Your task to perform on an android device: turn off notifications in google photos Image 0: 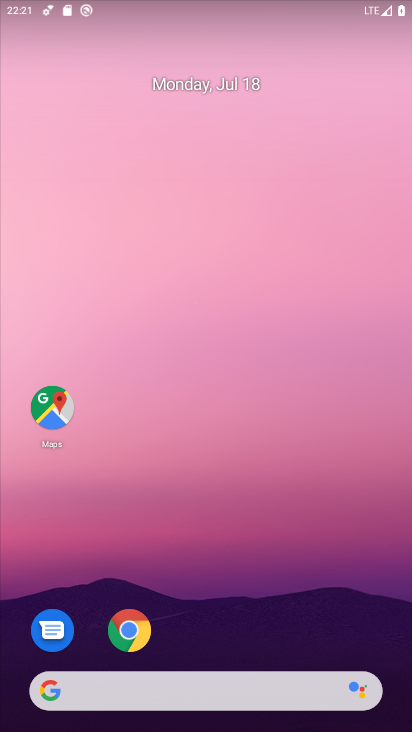
Step 0: drag from (202, 599) to (212, 216)
Your task to perform on an android device: turn off notifications in google photos Image 1: 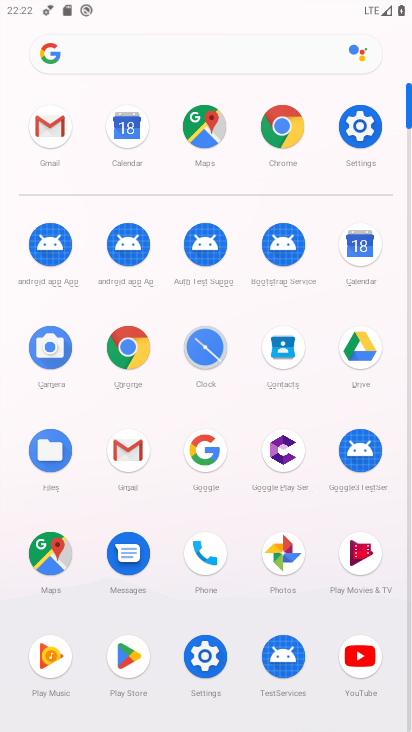
Step 1: click (294, 549)
Your task to perform on an android device: turn off notifications in google photos Image 2: 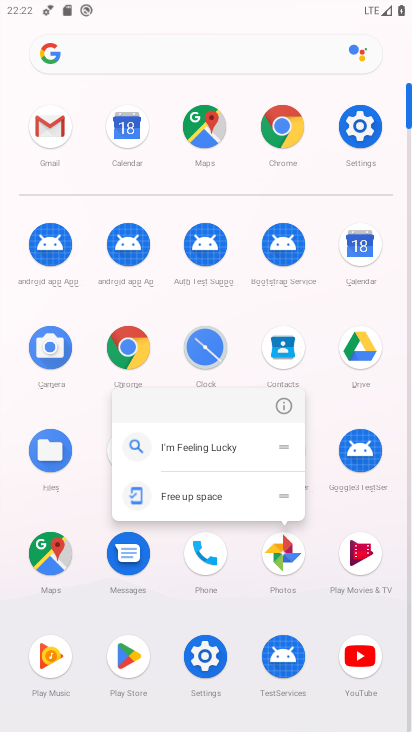
Step 2: click (292, 551)
Your task to perform on an android device: turn off notifications in google photos Image 3: 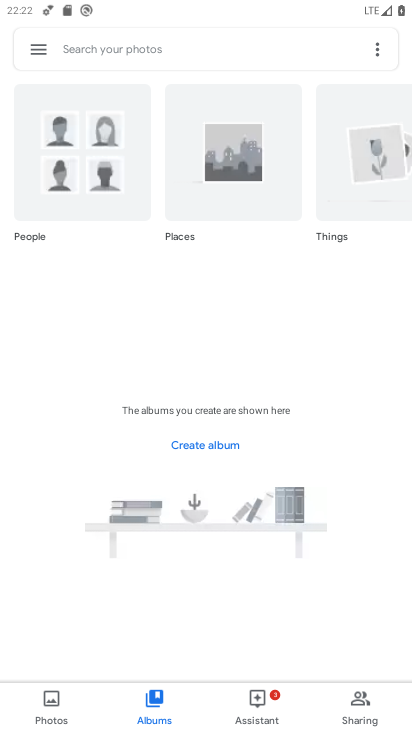
Step 3: click (42, 48)
Your task to perform on an android device: turn off notifications in google photos Image 4: 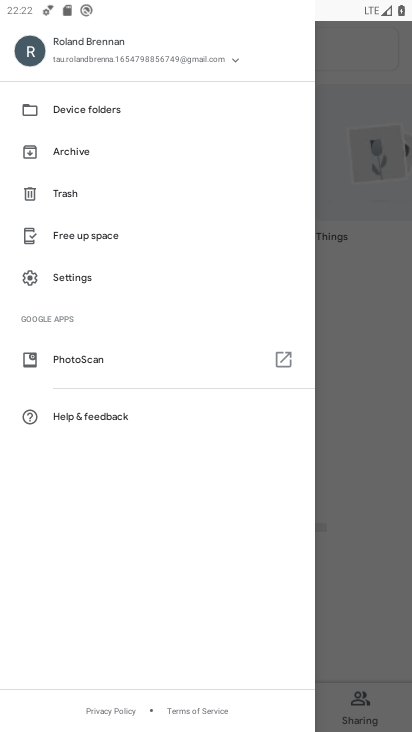
Step 4: click (76, 276)
Your task to perform on an android device: turn off notifications in google photos Image 5: 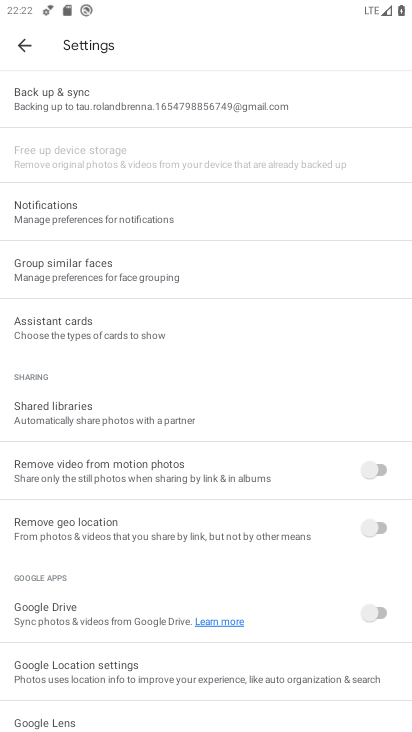
Step 5: click (109, 199)
Your task to perform on an android device: turn off notifications in google photos Image 6: 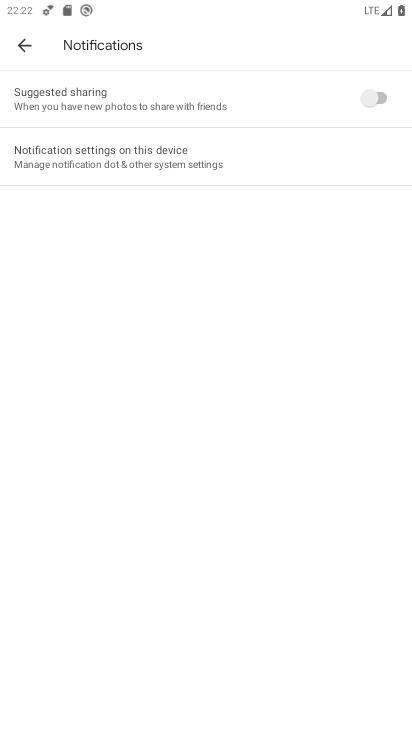
Step 6: click (32, 38)
Your task to perform on an android device: turn off notifications in google photos Image 7: 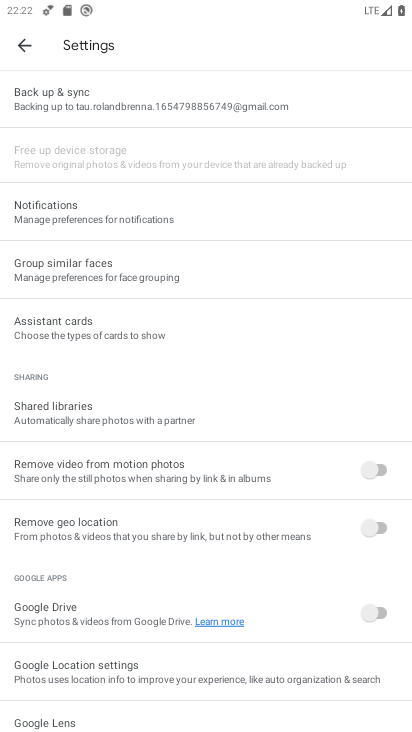
Step 7: click (120, 95)
Your task to perform on an android device: turn off notifications in google photos Image 8: 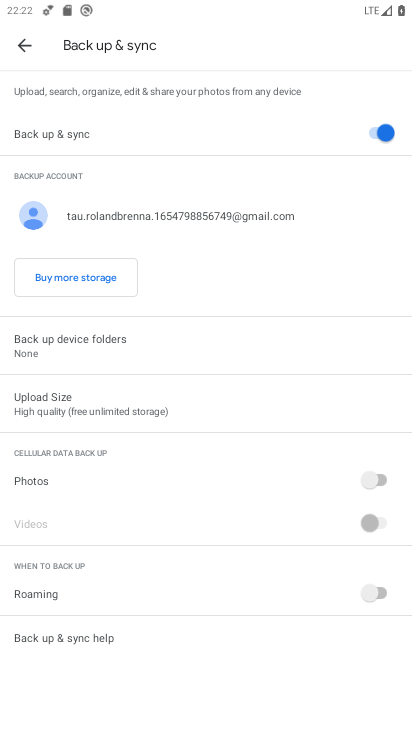
Step 8: click (29, 28)
Your task to perform on an android device: turn off notifications in google photos Image 9: 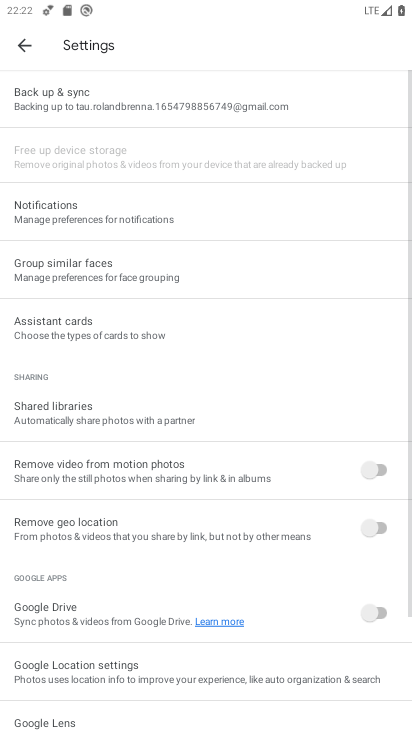
Step 9: click (109, 211)
Your task to perform on an android device: turn off notifications in google photos Image 10: 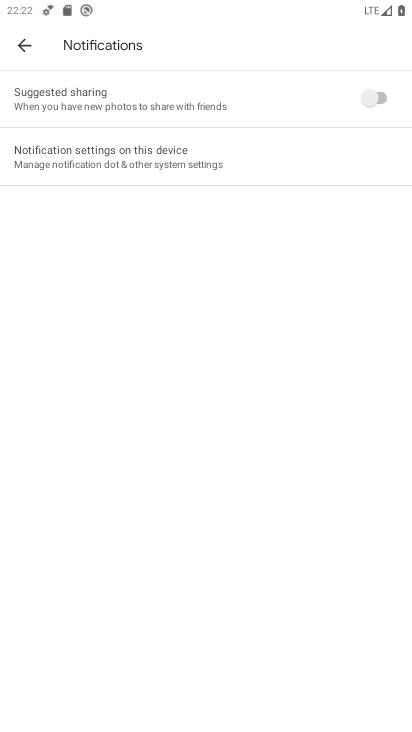
Step 10: click (125, 160)
Your task to perform on an android device: turn off notifications in google photos Image 11: 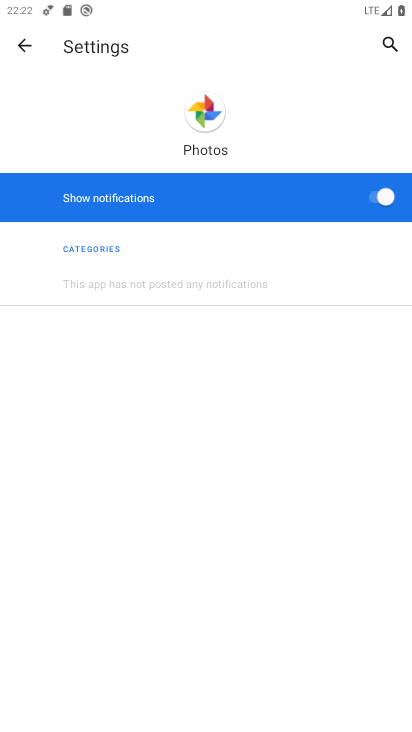
Step 11: click (379, 200)
Your task to perform on an android device: turn off notifications in google photos Image 12: 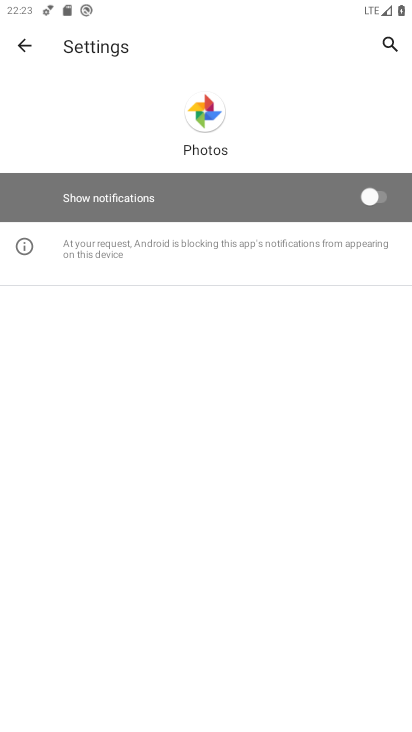
Step 12: task complete